Your task to perform on an android device: turn off priority inbox in the gmail app Image 0: 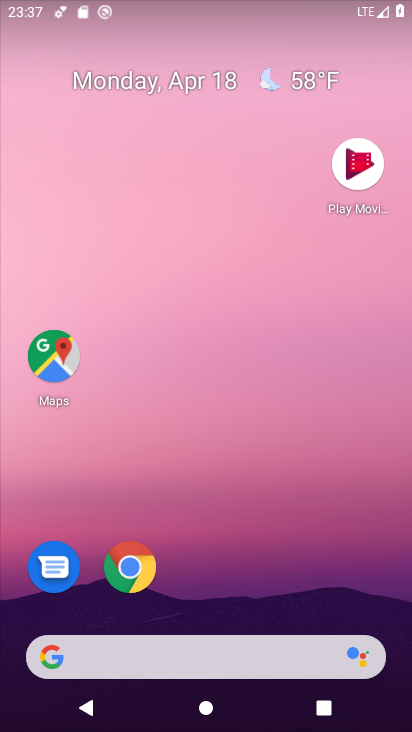
Step 0: drag from (230, 608) to (312, 292)
Your task to perform on an android device: turn off priority inbox in the gmail app Image 1: 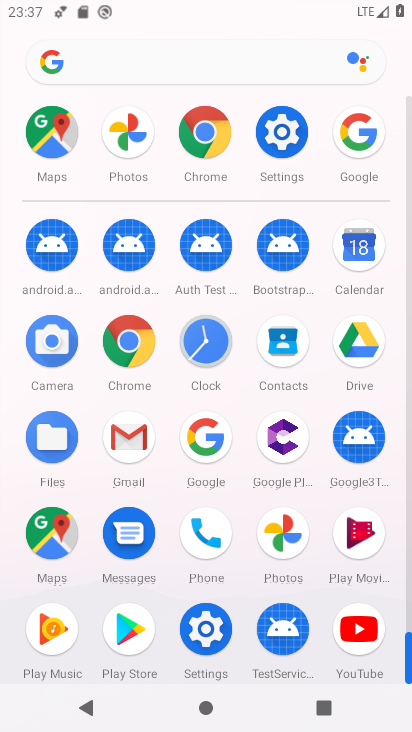
Step 1: click (129, 434)
Your task to perform on an android device: turn off priority inbox in the gmail app Image 2: 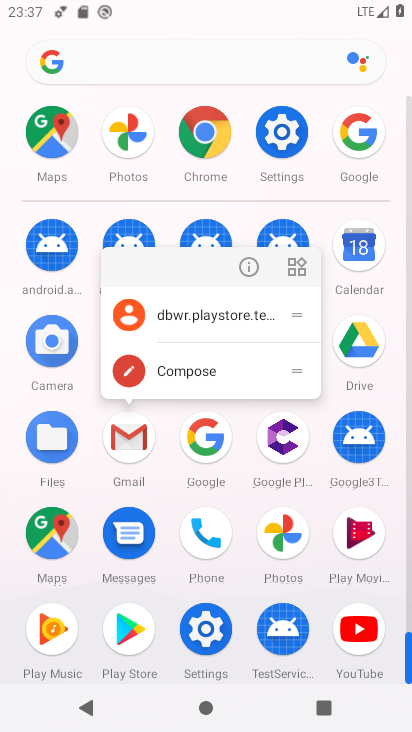
Step 2: click (242, 267)
Your task to perform on an android device: turn off priority inbox in the gmail app Image 3: 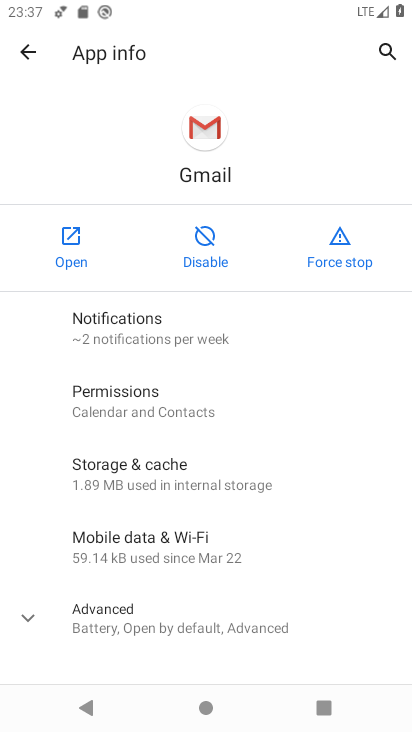
Step 3: click (83, 228)
Your task to perform on an android device: turn off priority inbox in the gmail app Image 4: 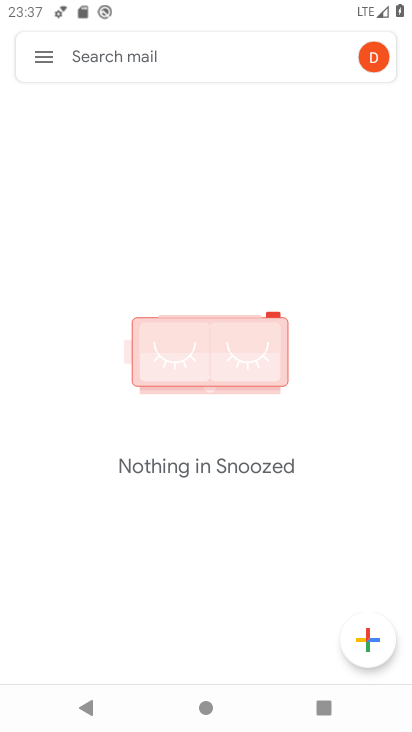
Step 4: click (41, 55)
Your task to perform on an android device: turn off priority inbox in the gmail app Image 5: 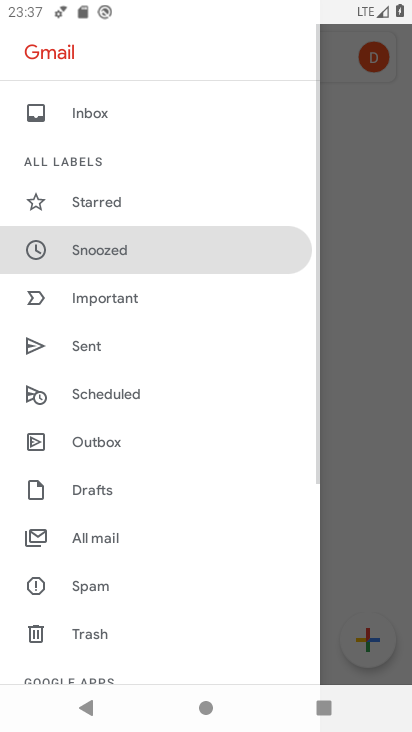
Step 5: drag from (210, 519) to (244, 104)
Your task to perform on an android device: turn off priority inbox in the gmail app Image 6: 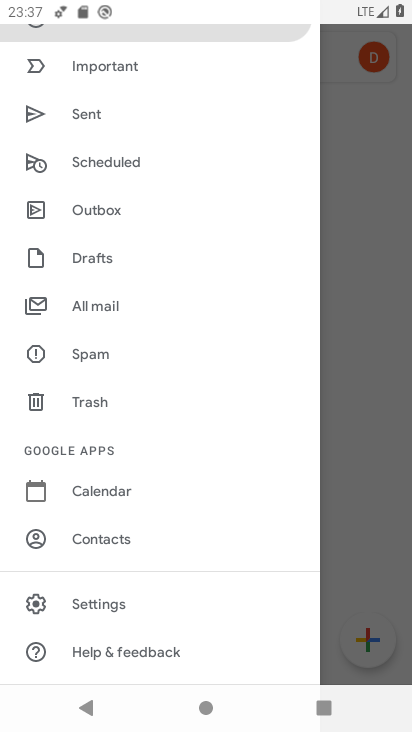
Step 6: click (153, 598)
Your task to perform on an android device: turn off priority inbox in the gmail app Image 7: 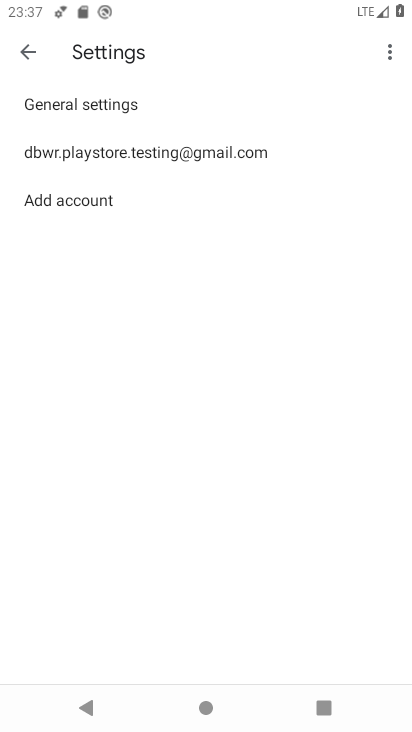
Step 7: click (194, 156)
Your task to perform on an android device: turn off priority inbox in the gmail app Image 8: 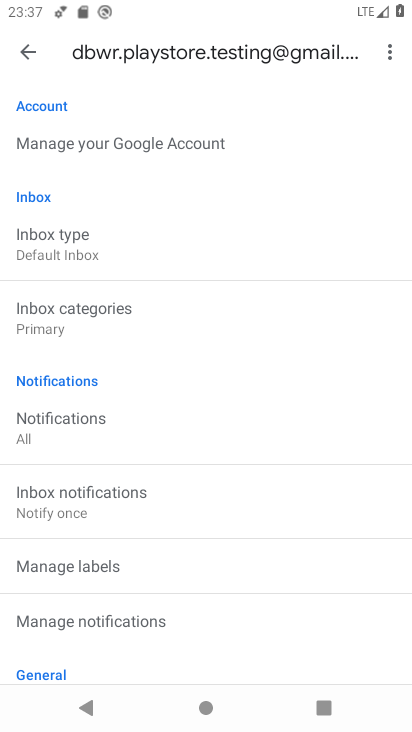
Step 8: click (52, 246)
Your task to perform on an android device: turn off priority inbox in the gmail app Image 9: 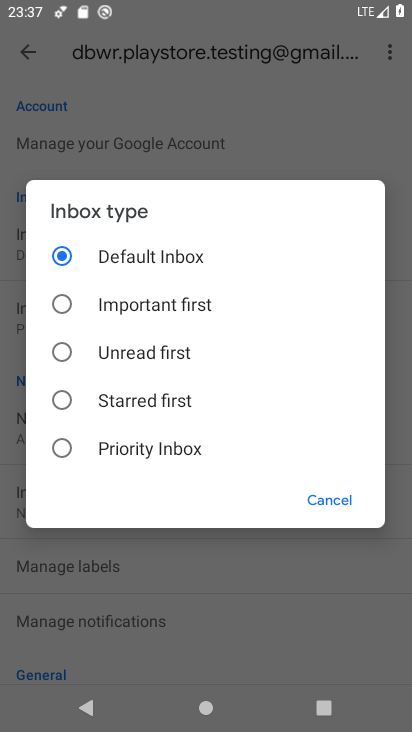
Step 9: click (83, 311)
Your task to perform on an android device: turn off priority inbox in the gmail app Image 10: 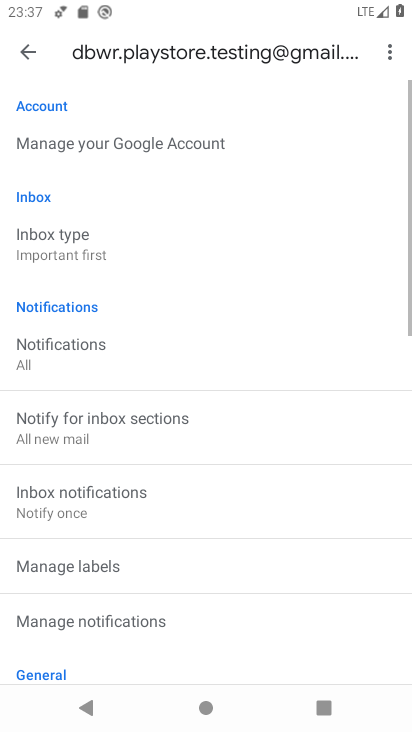
Step 10: task complete